Your task to perform on an android device: see creations saved in the google photos Image 0: 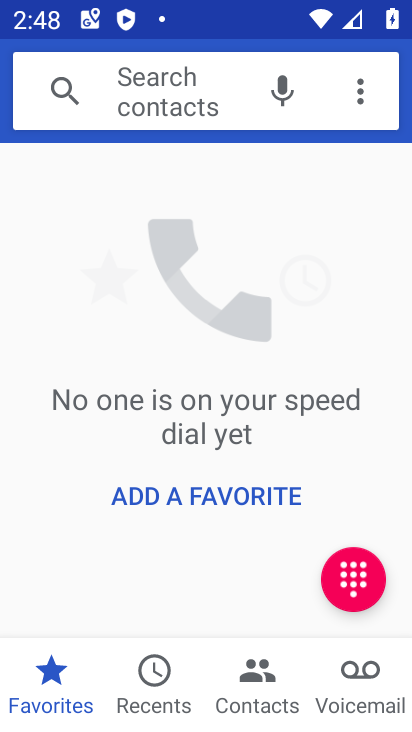
Step 0: press home button
Your task to perform on an android device: see creations saved in the google photos Image 1: 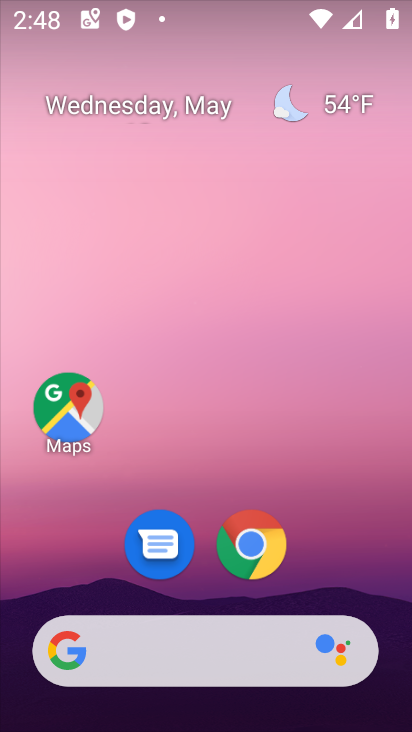
Step 1: drag from (333, 551) to (368, 81)
Your task to perform on an android device: see creations saved in the google photos Image 2: 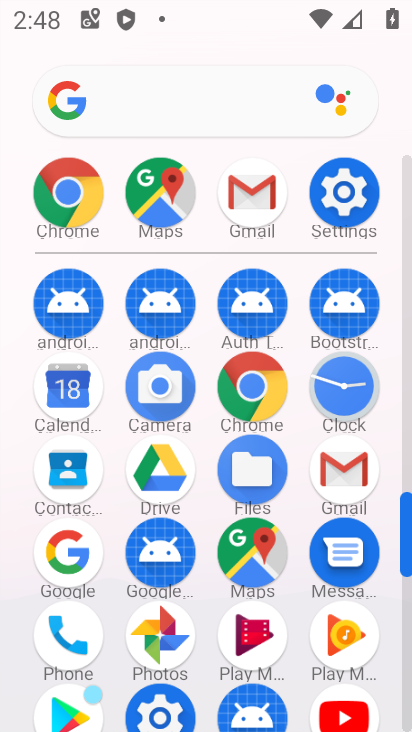
Step 2: click (150, 632)
Your task to perform on an android device: see creations saved in the google photos Image 3: 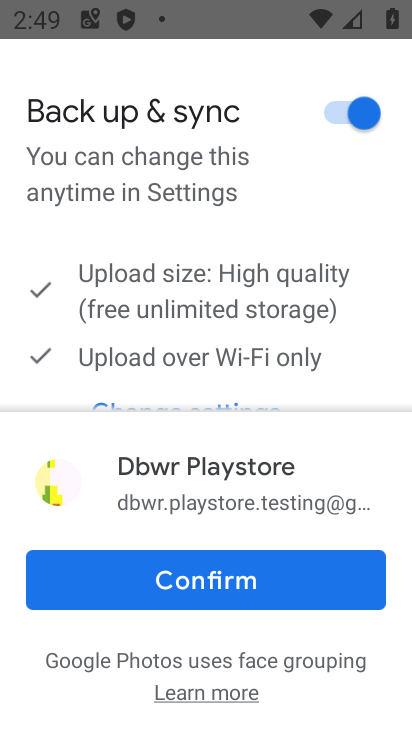
Step 3: click (326, 588)
Your task to perform on an android device: see creations saved in the google photos Image 4: 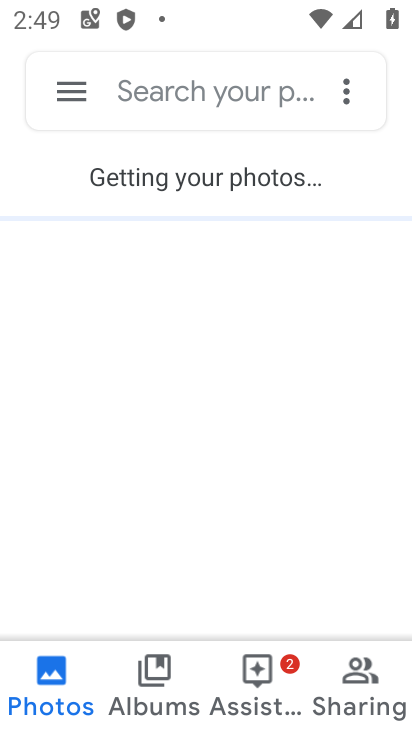
Step 4: click (266, 688)
Your task to perform on an android device: see creations saved in the google photos Image 5: 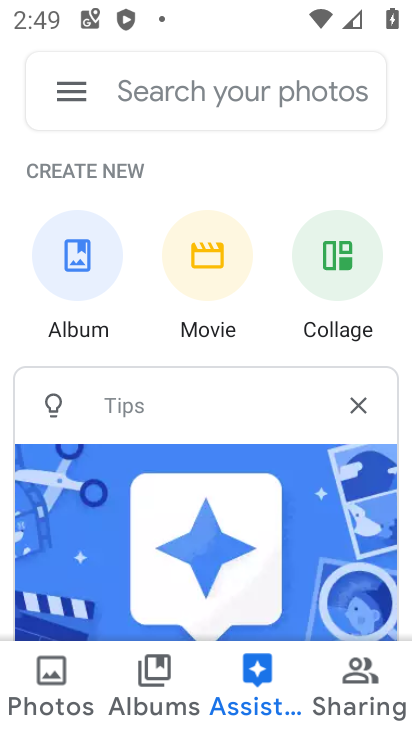
Step 5: click (181, 690)
Your task to perform on an android device: see creations saved in the google photos Image 6: 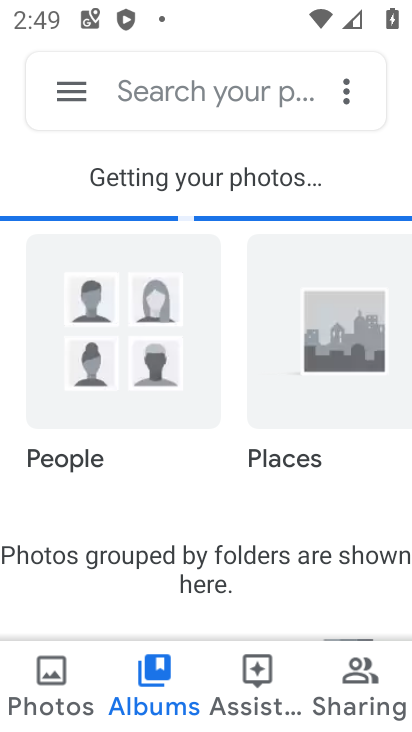
Step 6: task complete